Your task to perform on an android device: empty trash in the gmail app Image 0: 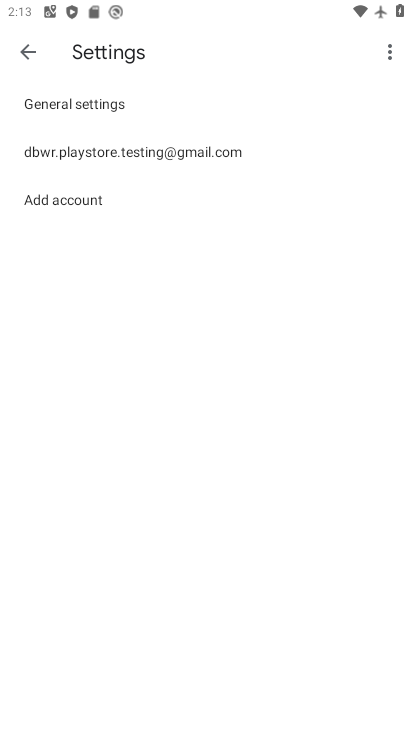
Step 0: press home button
Your task to perform on an android device: empty trash in the gmail app Image 1: 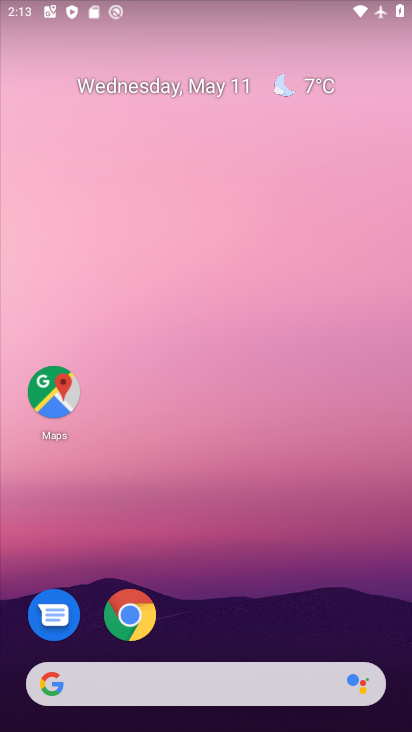
Step 1: drag from (293, 626) to (293, 68)
Your task to perform on an android device: empty trash in the gmail app Image 2: 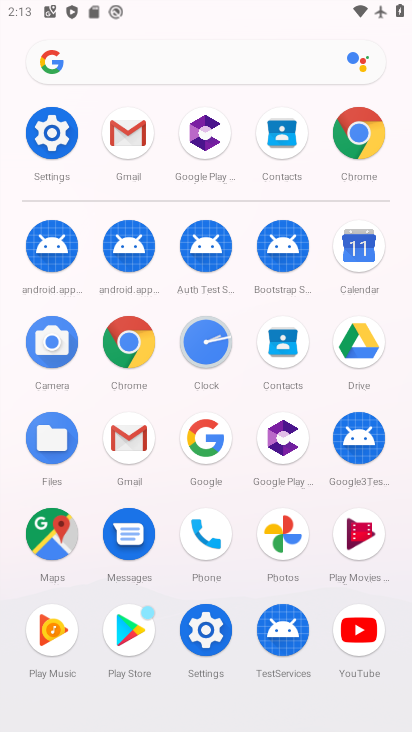
Step 2: click (138, 124)
Your task to perform on an android device: empty trash in the gmail app Image 3: 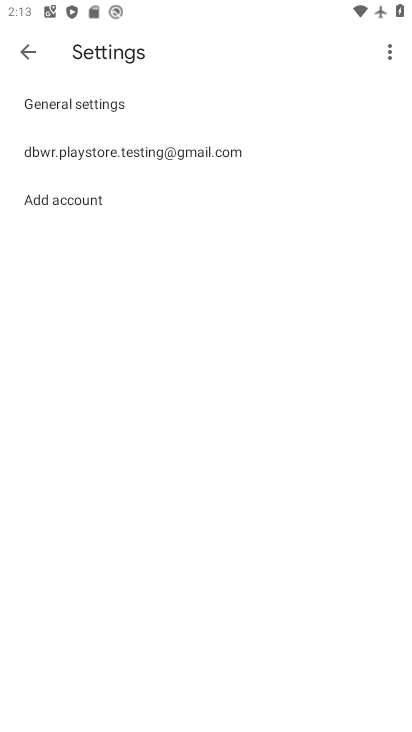
Step 3: click (25, 60)
Your task to perform on an android device: empty trash in the gmail app Image 4: 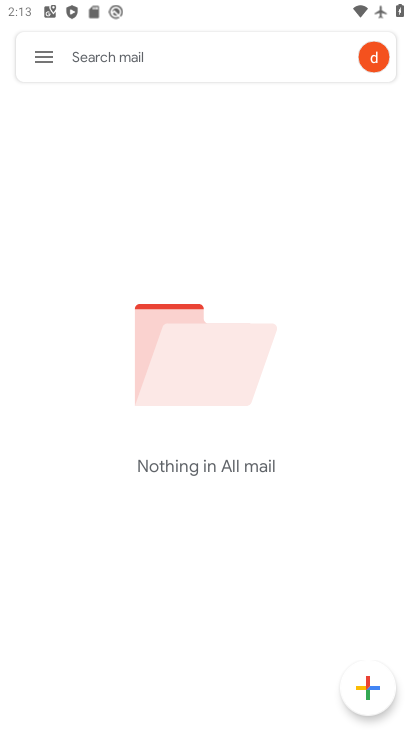
Step 4: click (46, 48)
Your task to perform on an android device: empty trash in the gmail app Image 5: 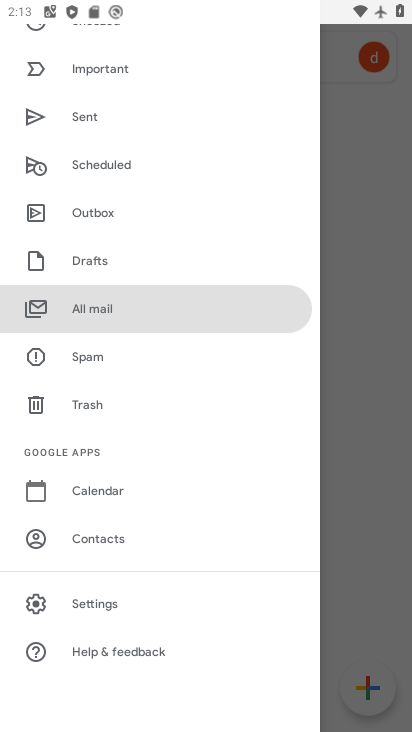
Step 5: click (95, 397)
Your task to perform on an android device: empty trash in the gmail app Image 6: 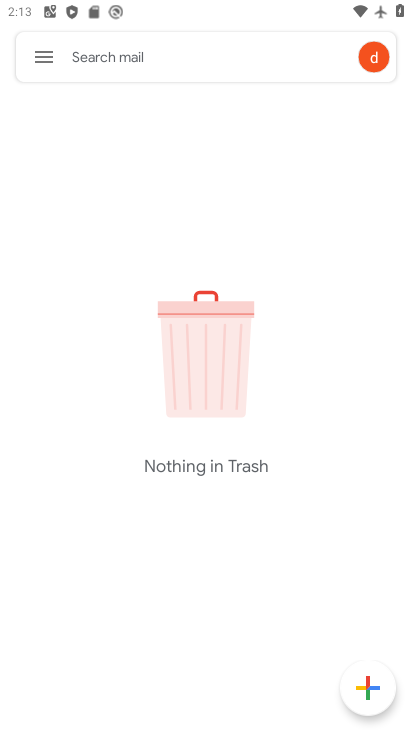
Step 6: task complete